Your task to perform on an android device: turn on javascript in the chrome app Image 0: 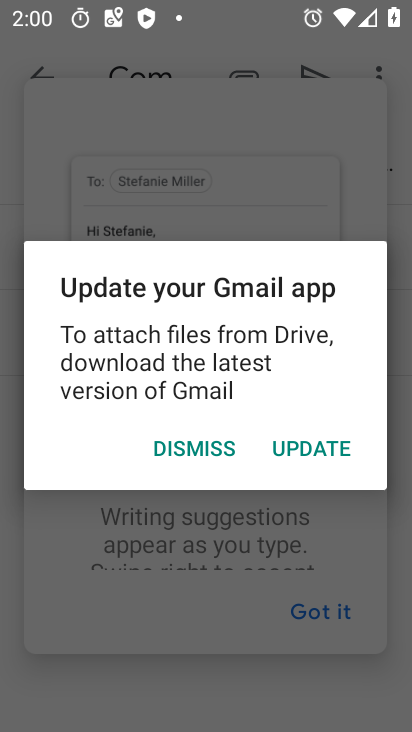
Step 0: press back button
Your task to perform on an android device: turn on javascript in the chrome app Image 1: 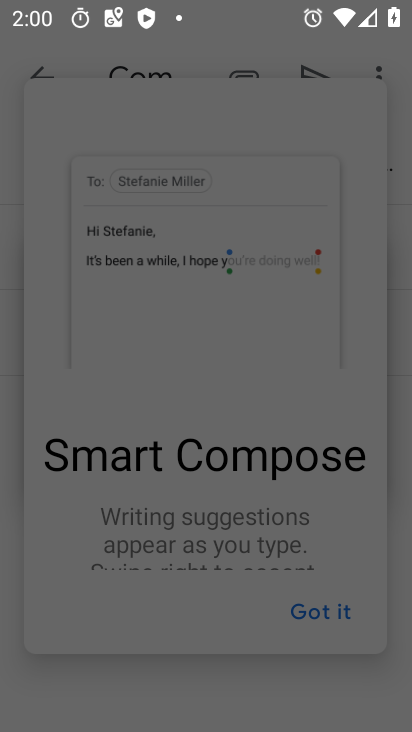
Step 1: press home button
Your task to perform on an android device: turn on javascript in the chrome app Image 2: 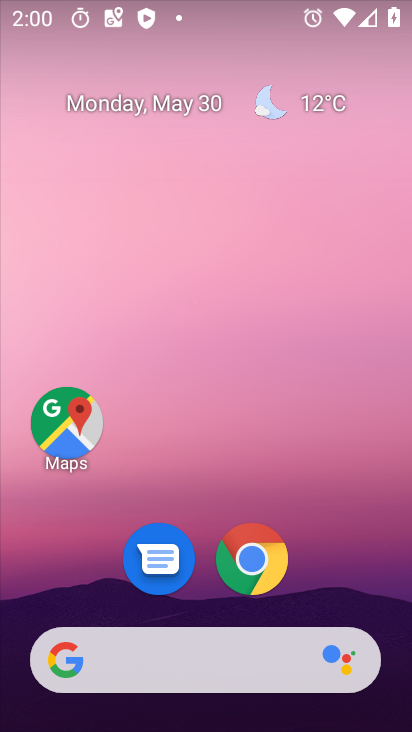
Step 2: click (259, 557)
Your task to perform on an android device: turn on javascript in the chrome app Image 3: 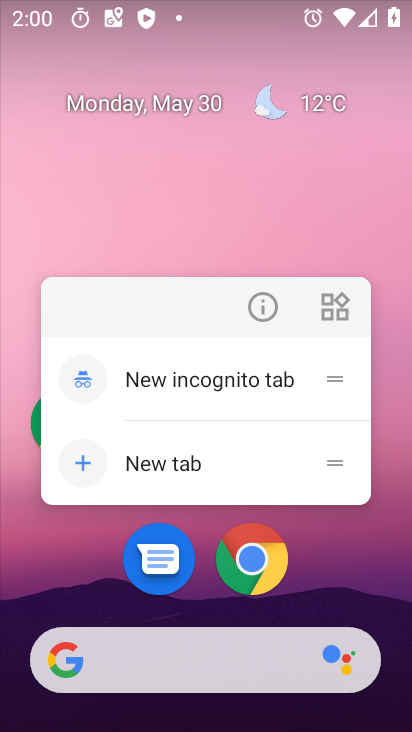
Step 3: click (263, 554)
Your task to perform on an android device: turn on javascript in the chrome app Image 4: 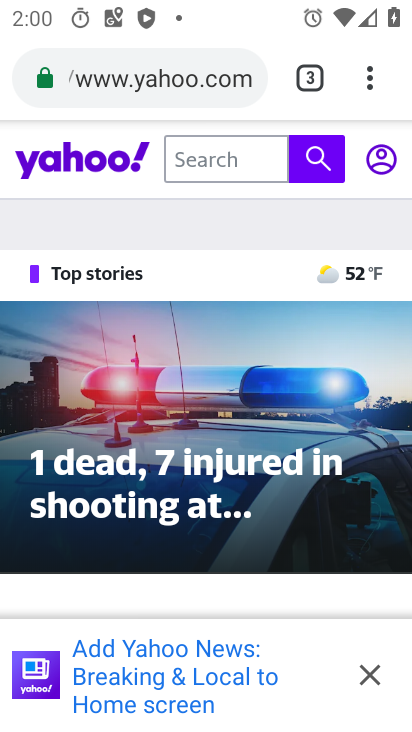
Step 4: drag from (364, 70) to (94, 616)
Your task to perform on an android device: turn on javascript in the chrome app Image 5: 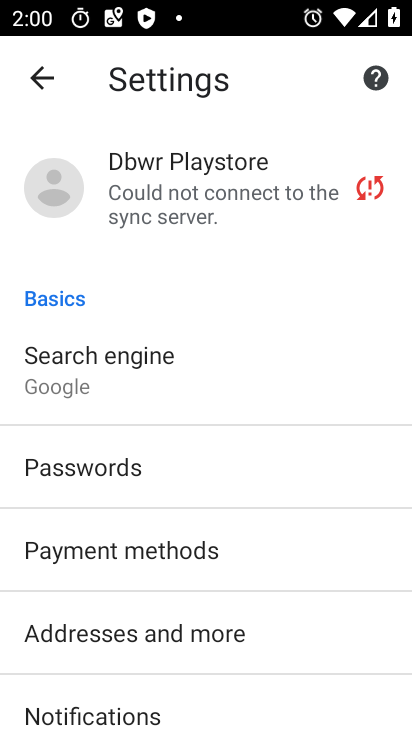
Step 5: drag from (152, 698) to (224, 192)
Your task to perform on an android device: turn on javascript in the chrome app Image 6: 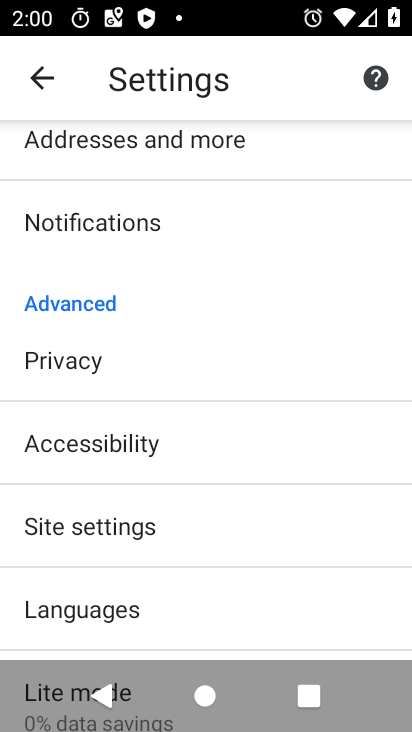
Step 6: click (92, 542)
Your task to perform on an android device: turn on javascript in the chrome app Image 7: 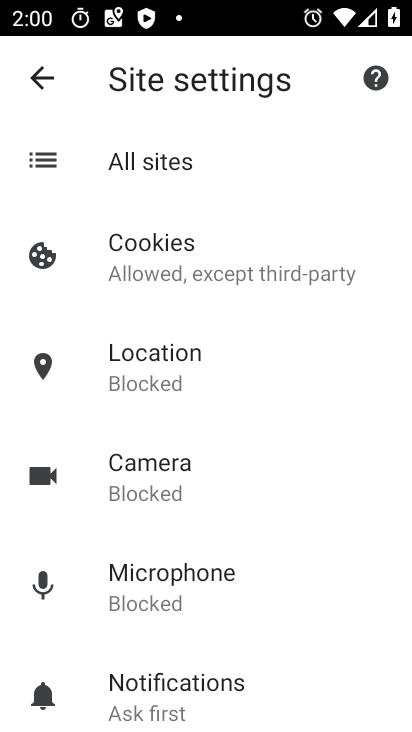
Step 7: drag from (174, 670) to (238, 210)
Your task to perform on an android device: turn on javascript in the chrome app Image 8: 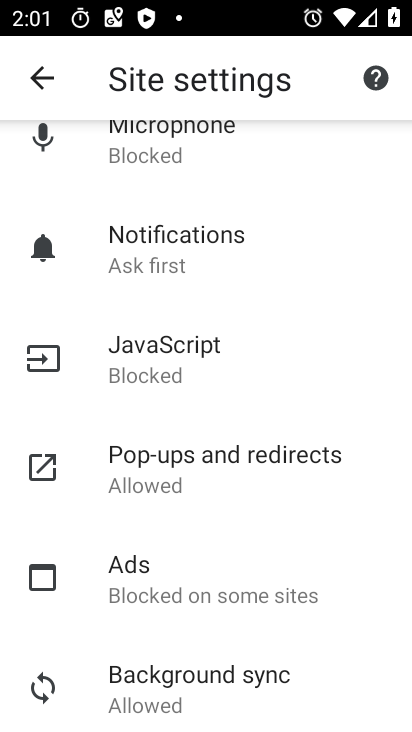
Step 8: click (203, 365)
Your task to perform on an android device: turn on javascript in the chrome app Image 9: 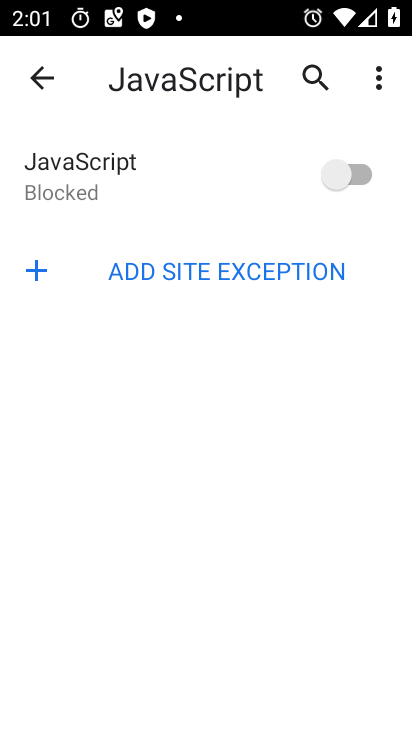
Step 9: click (345, 166)
Your task to perform on an android device: turn on javascript in the chrome app Image 10: 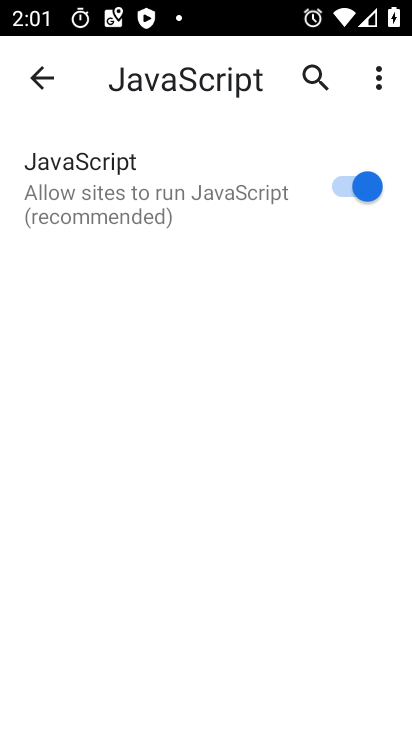
Step 10: task complete